Your task to perform on an android device: turn on notifications settings in the gmail app Image 0: 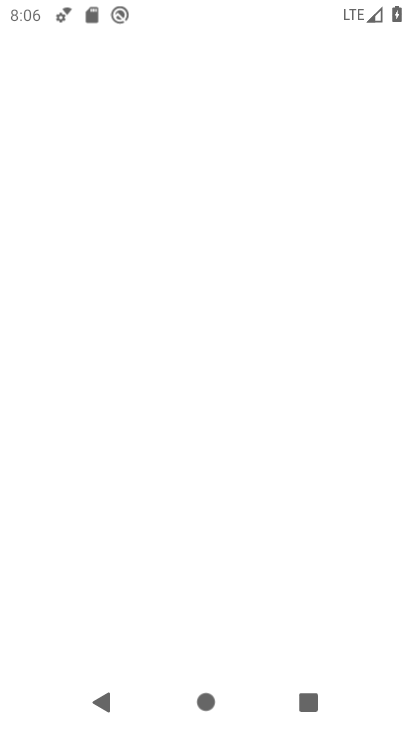
Step 0: press home button
Your task to perform on an android device: turn on notifications settings in the gmail app Image 1: 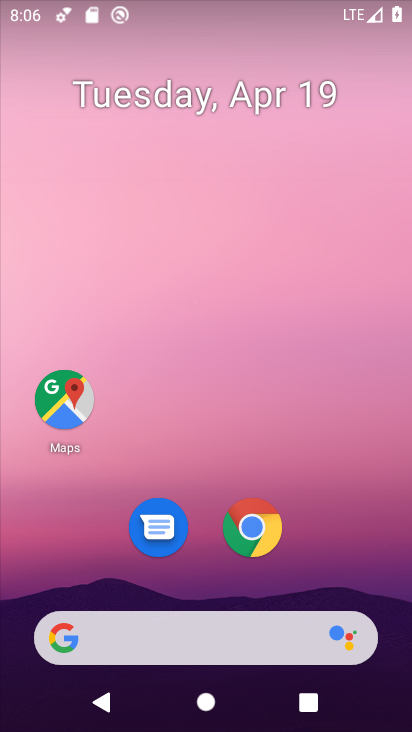
Step 1: drag from (369, 553) to (376, 105)
Your task to perform on an android device: turn on notifications settings in the gmail app Image 2: 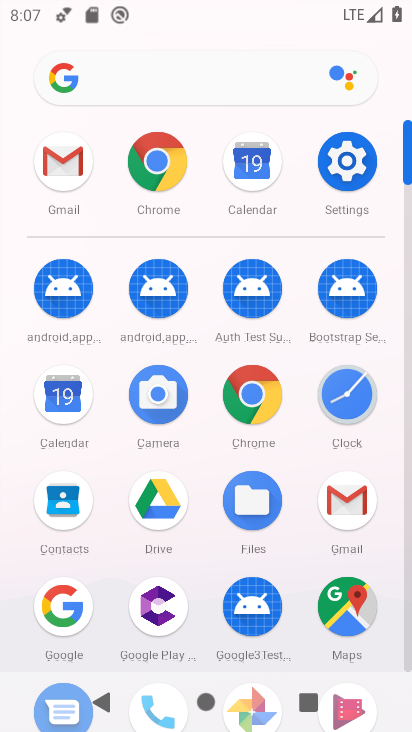
Step 2: click (350, 512)
Your task to perform on an android device: turn on notifications settings in the gmail app Image 3: 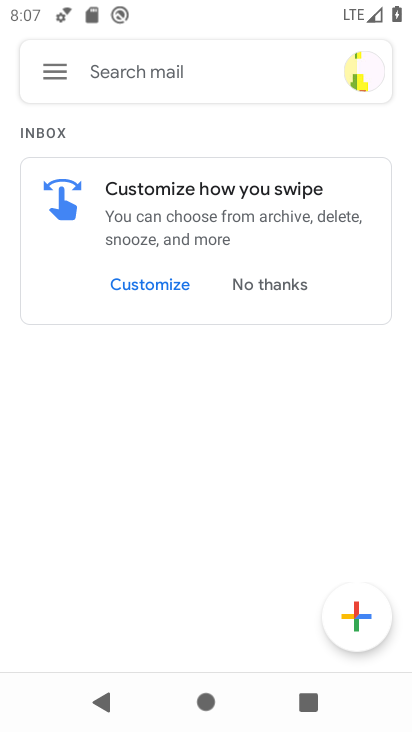
Step 3: click (59, 80)
Your task to perform on an android device: turn on notifications settings in the gmail app Image 4: 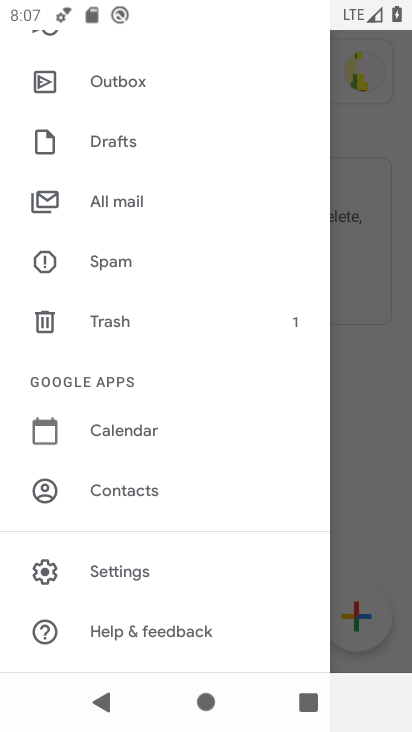
Step 4: drag from (230, 589) to (229, 264)
Your task to perform on an android device: turn on notifications settings in the gmail app Image 5: 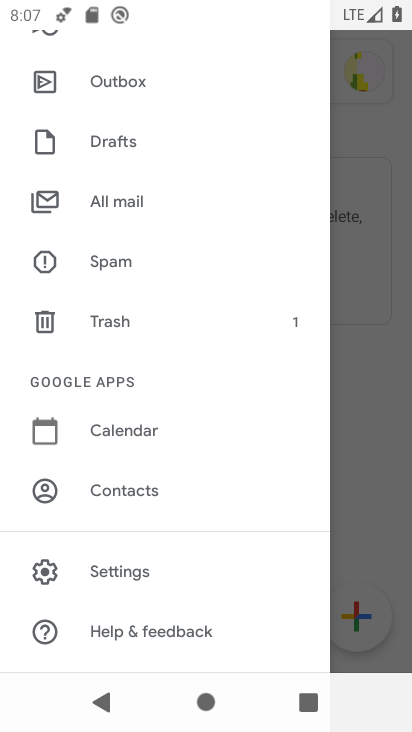
Step 5: click (142, 572)
Your task to perform on an android device: turn on notifications settings in the gmail app Image 6: 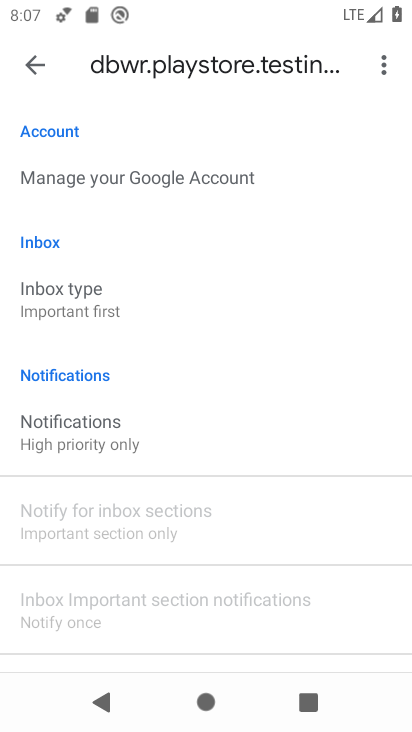
Step 6: click (120, 437)
Your task to perform on an android device: turn on notifications settings in the gmail app Image 7: 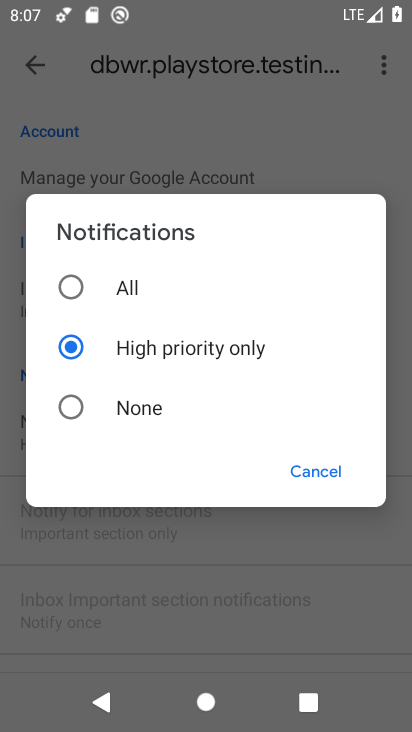
Step 7: click (121, 285)
Your task to perform on an android device: turn on notifications settings in the gmail app Image 8: 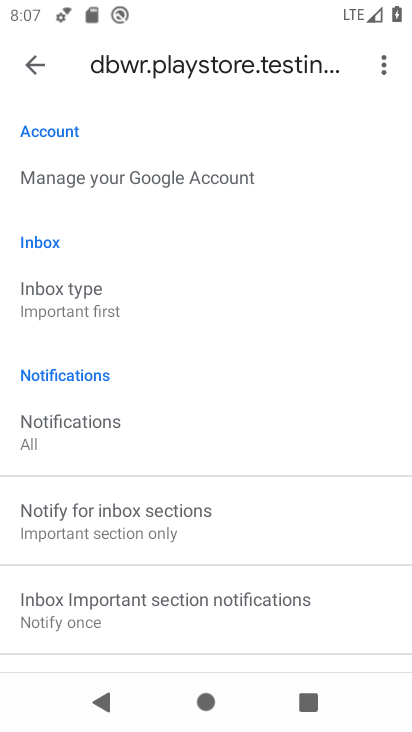
Step 8: task complete